Your task to perform on an android device: Open Android settings Image 0: 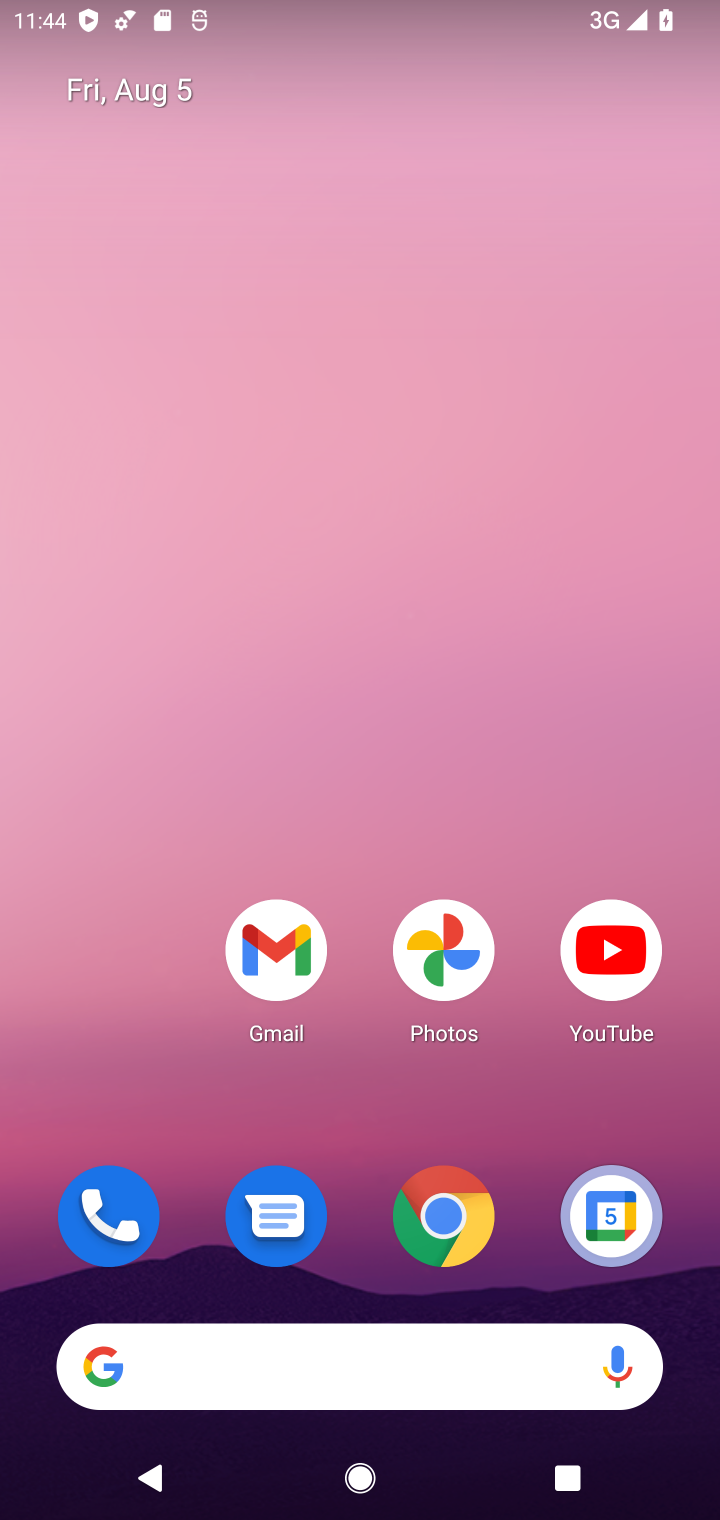
Step 0: drag from (312, 1328) to (301, 207)
Your task to perform on an android device: Open Android settings Image 1: 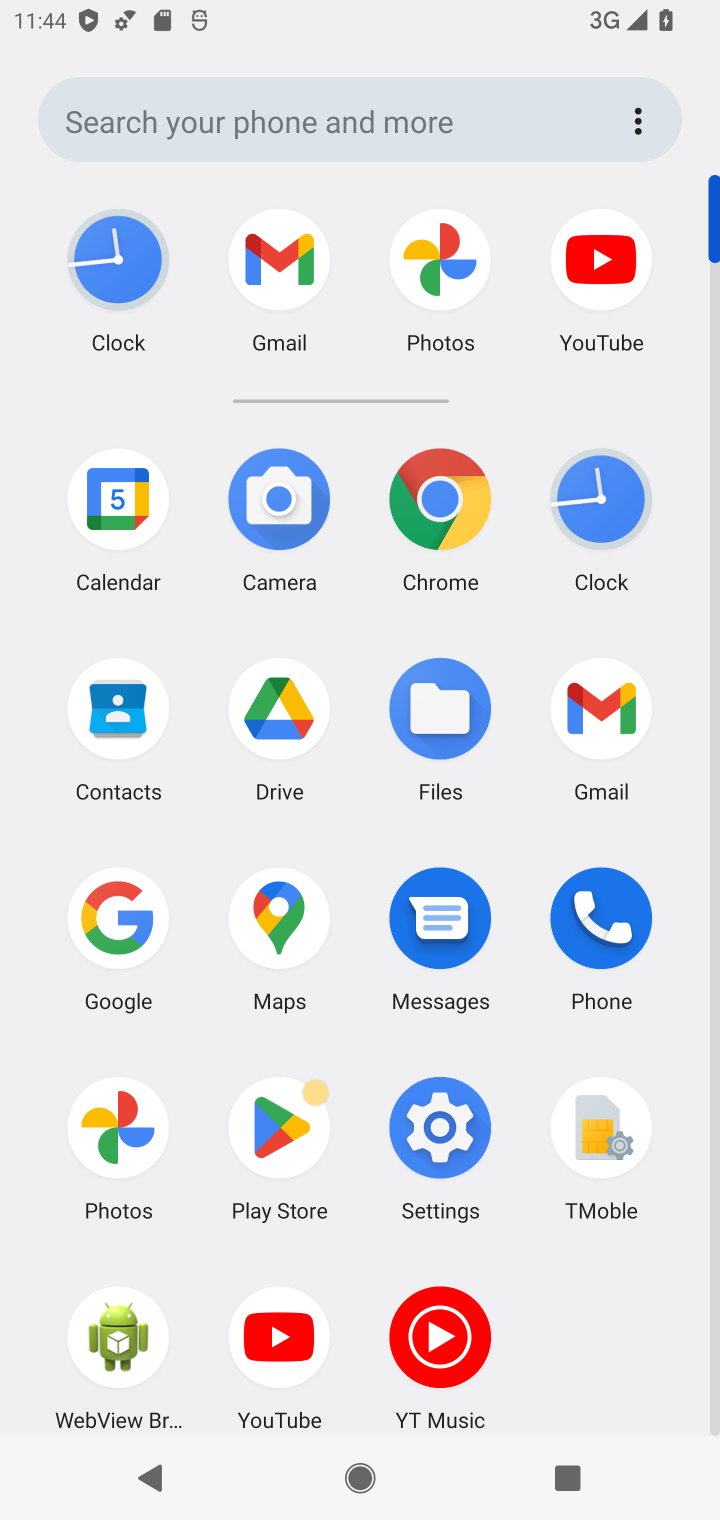
Step 1: click (448, 1144)
Your task to perform on an android device: Open Android settings Image 2: 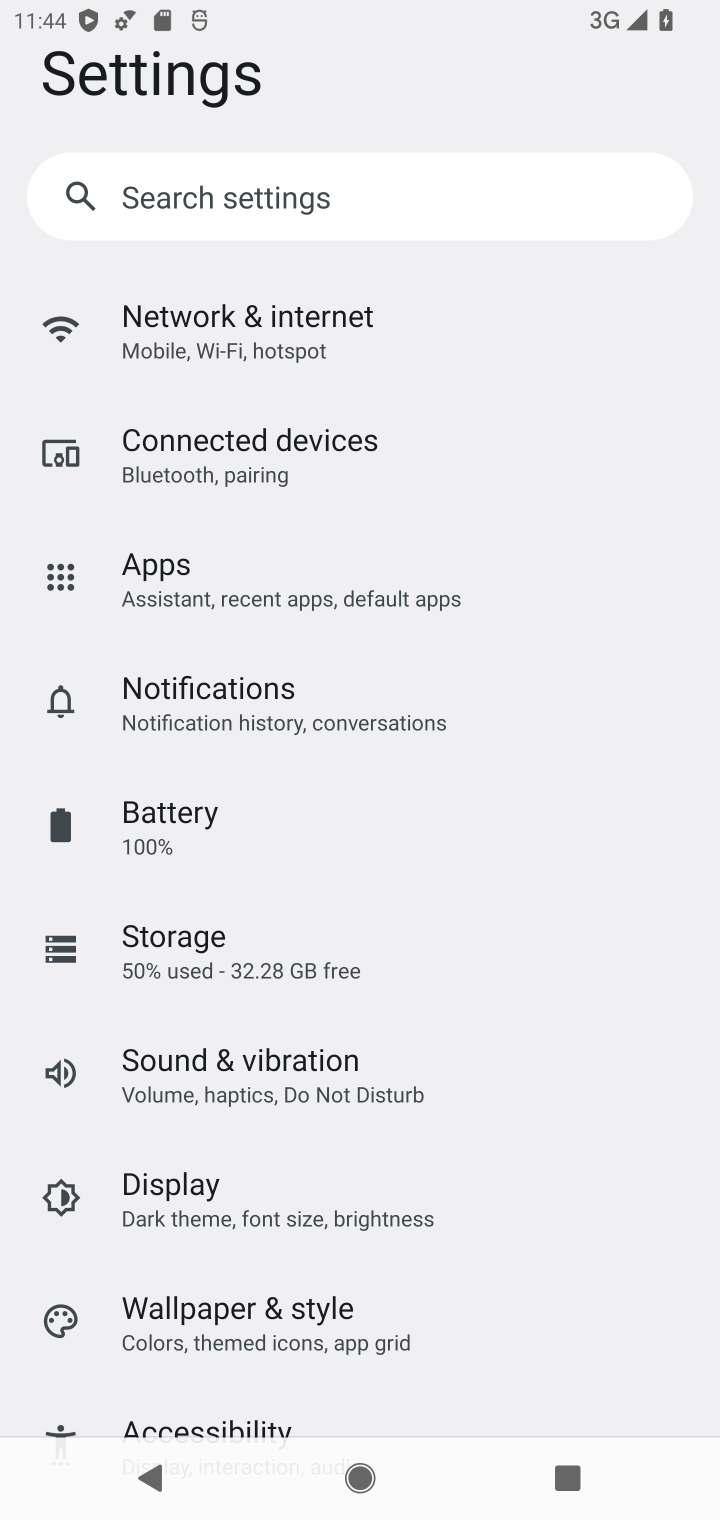
Step 2: drag from (634, 1388) to (583, 536)
Your task to perform on an android device: Open Android settings Image 3: 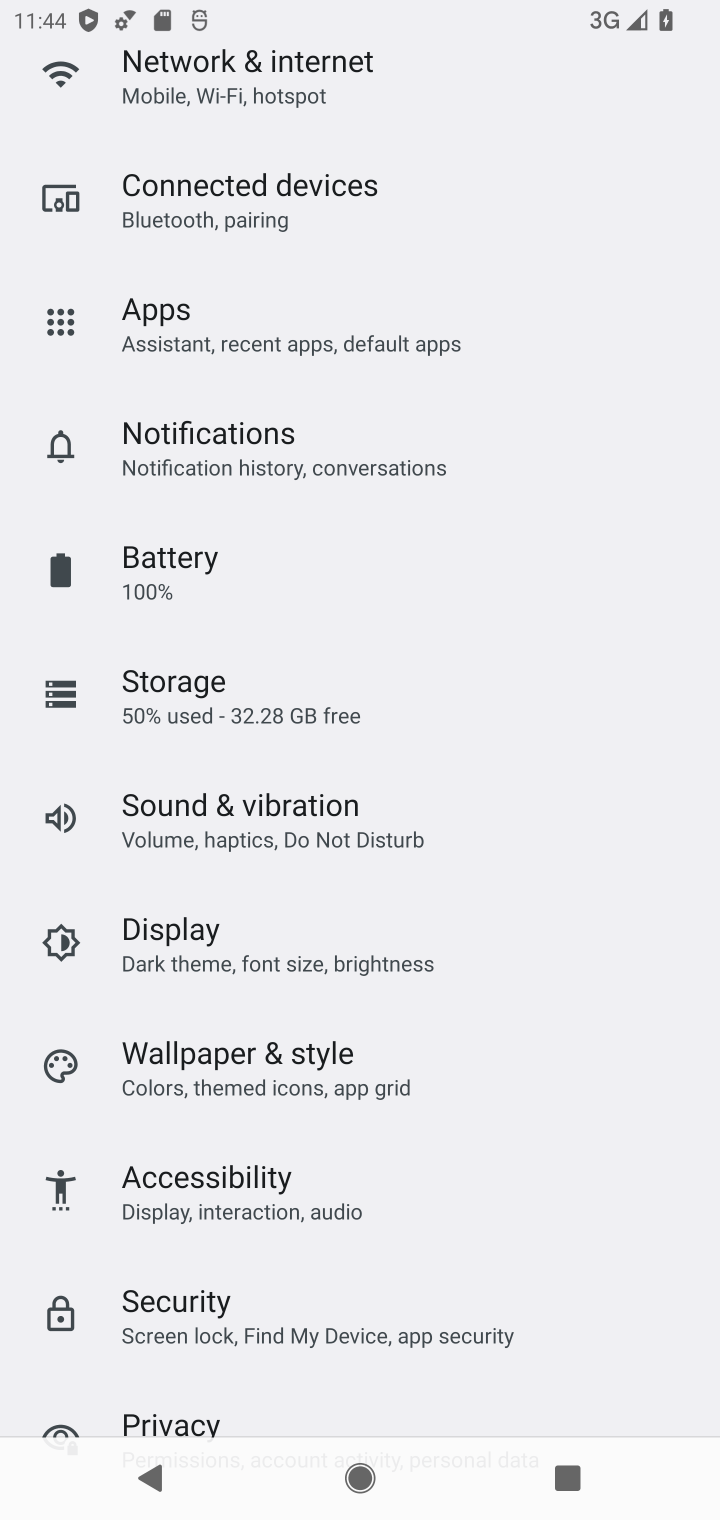
Step 3: drag from (625, 1328) to (320, 591)
Your task to perform on an android device: Open Android settings Image 4: 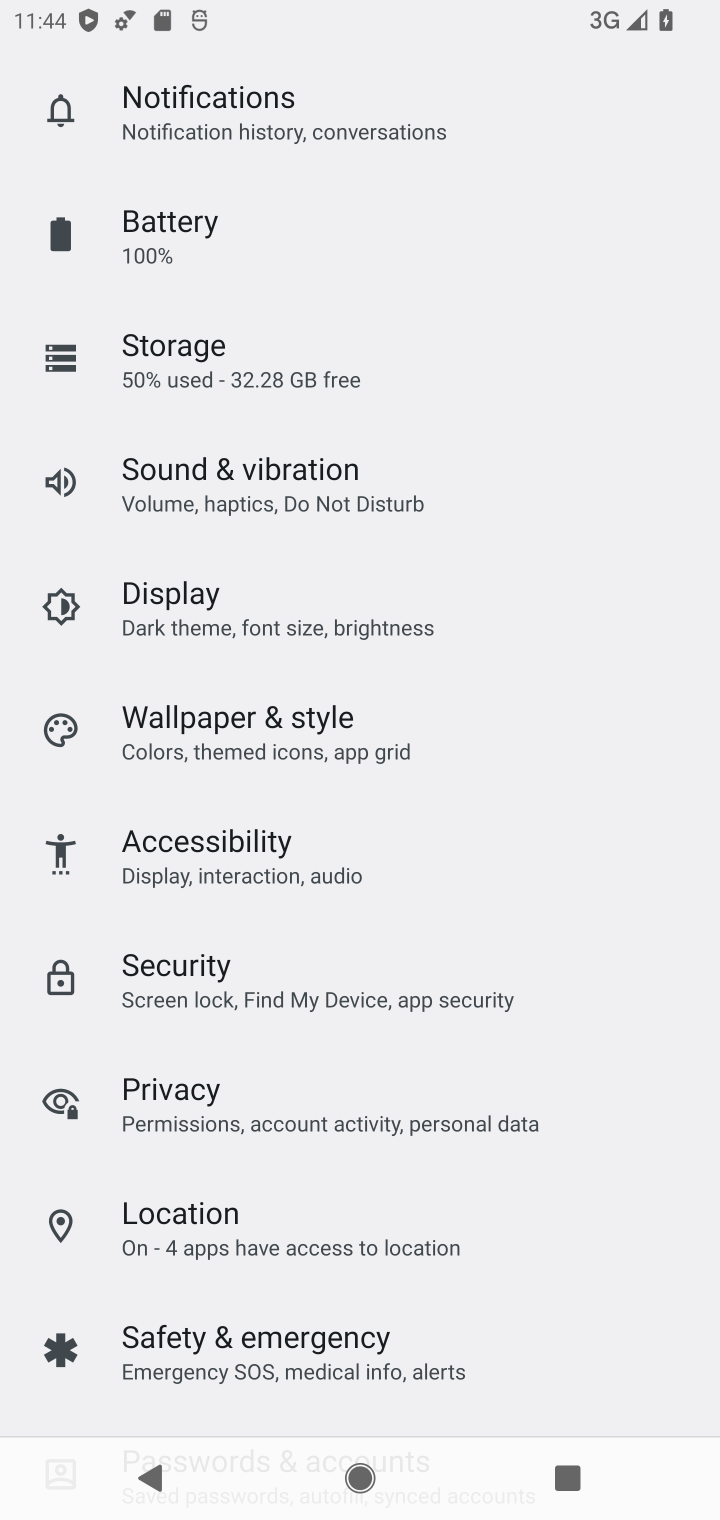
Step 4: drag from (605, 1347) to (644, 453)
Your task to perform on an android device: Open Android settings Image 5: 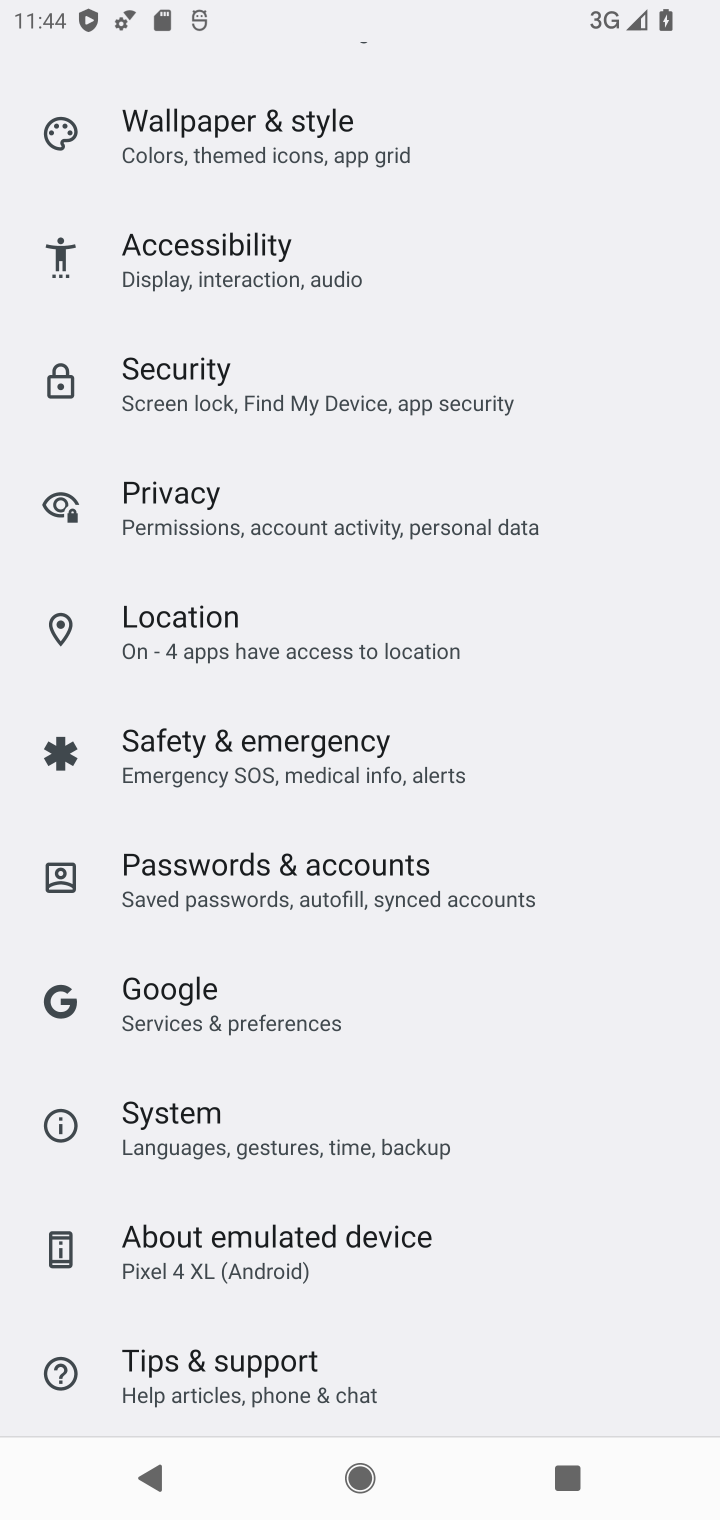
Step 5: click (358, 1260)
Your task to perform on an android device: Open Android settings Image 6: 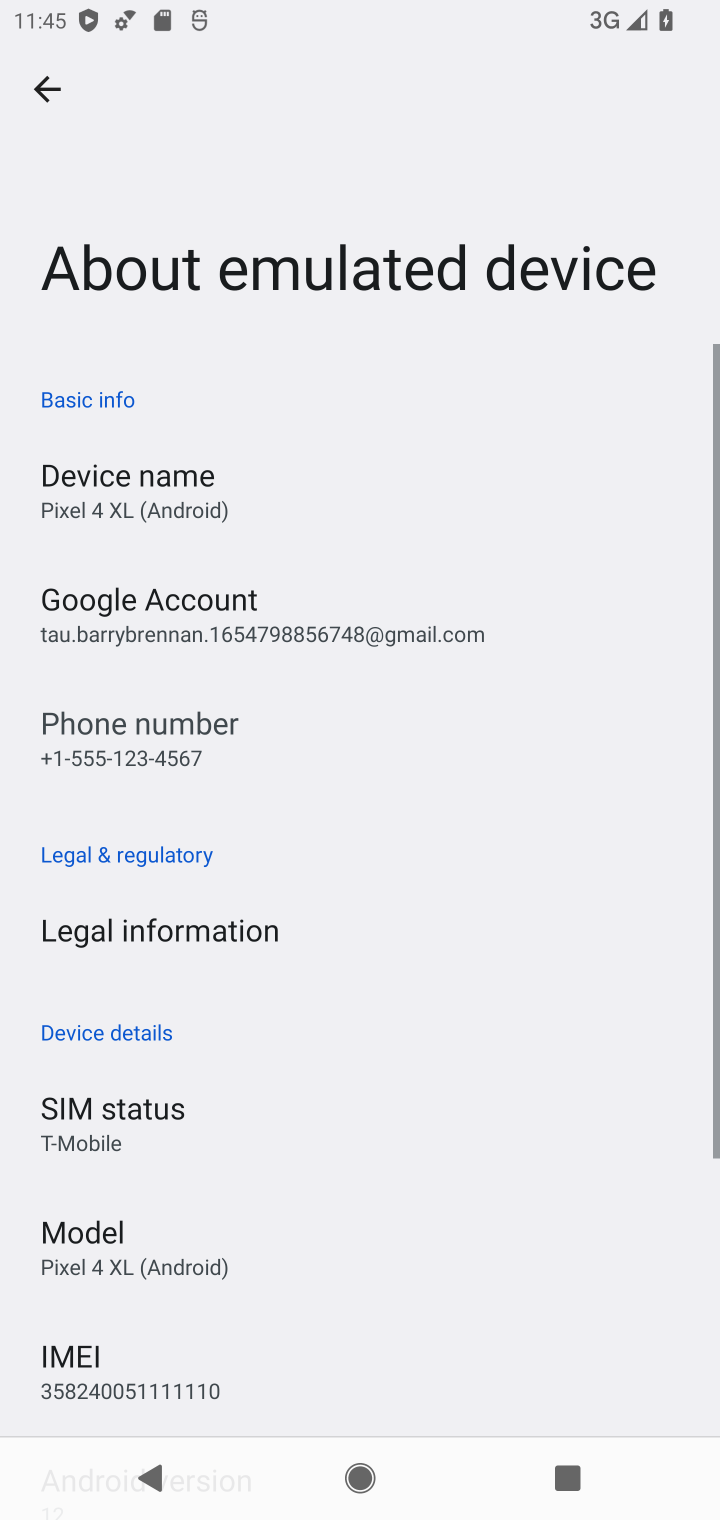
Step 6: task complete